Your task to perform on an android device: turn off translation in the chrome app Image 0: 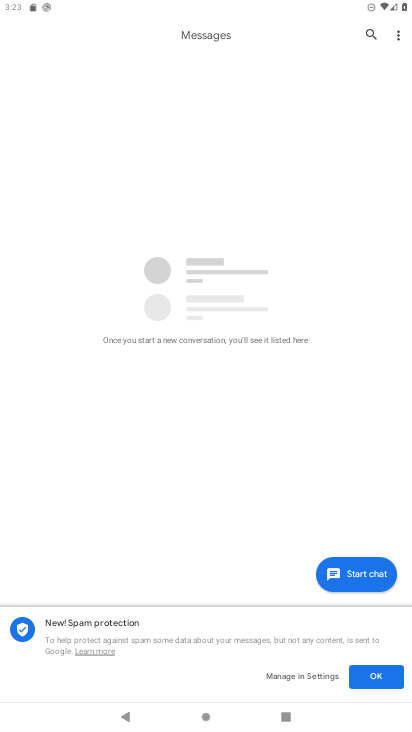
Step 0: press home button
Your task to perform on an android device: turn off translation in the chrome app Image 1: 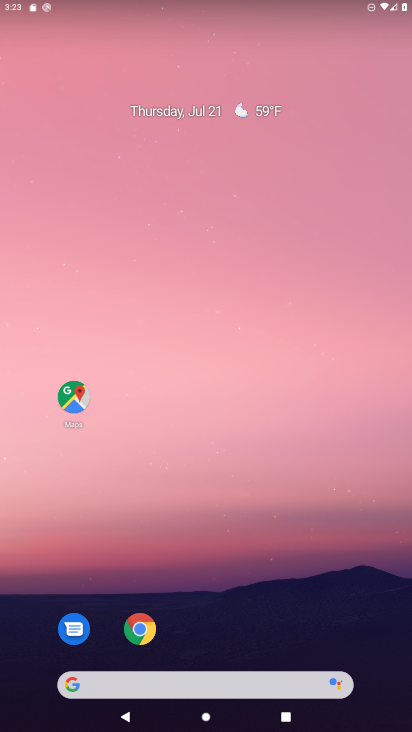
Step 1: click (138, 624)
Your task to perform on an android device: turn off translation in the chrome app Image 2: 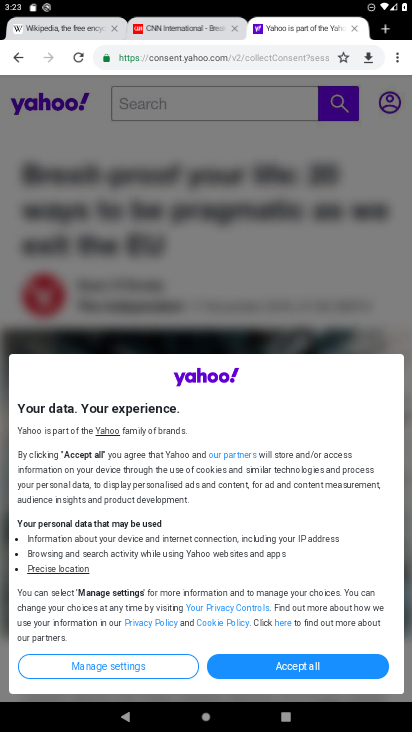
Step 2: click (395, 52)
Your task to perform on an android device: turn off translation in the chrome app Image 3: 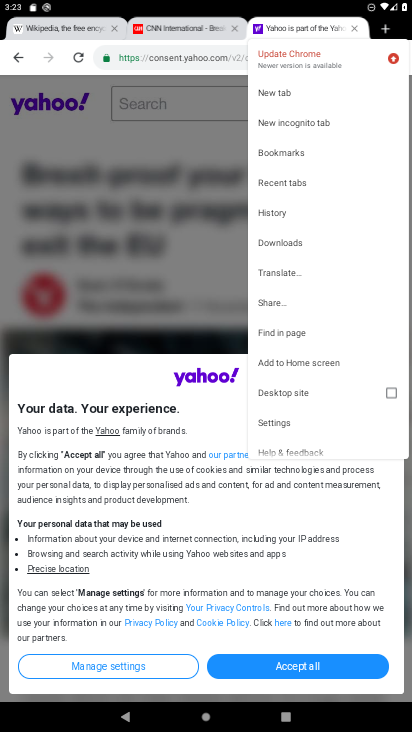
Step 3: click (276, 423)
Your task to perform on an android device: turn off translation in the chrome app Image 4: 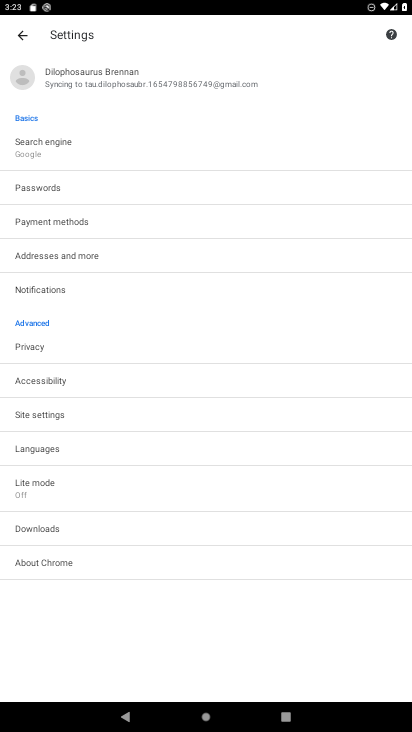
Step 4: click (60, 446)
Your task to perform on an android device: turn off translation in the chrome app Image 5: 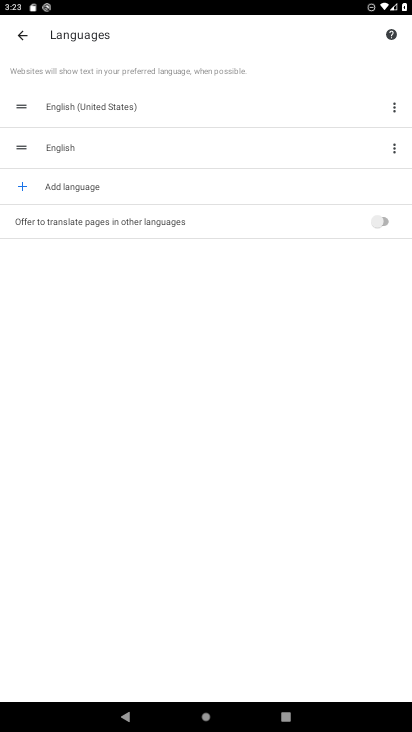
Step 5: task complete